Your task to perform on an android device: Toggle the flashlight Image 0: 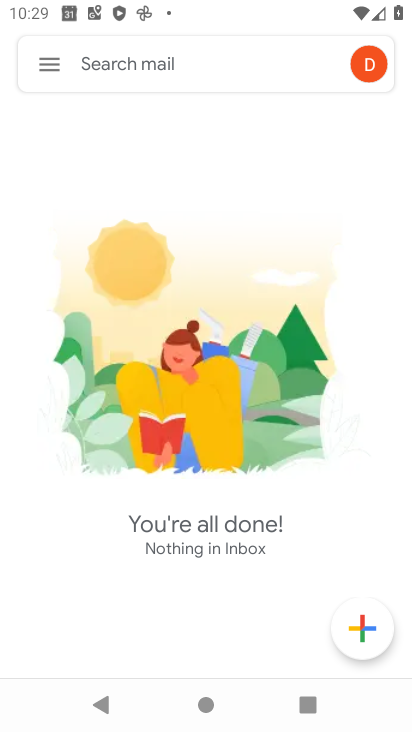
Step 0: drag from (247, 5) to (266, 613)
Your task to perform on an android device: Toggle the flashlight Image 1: 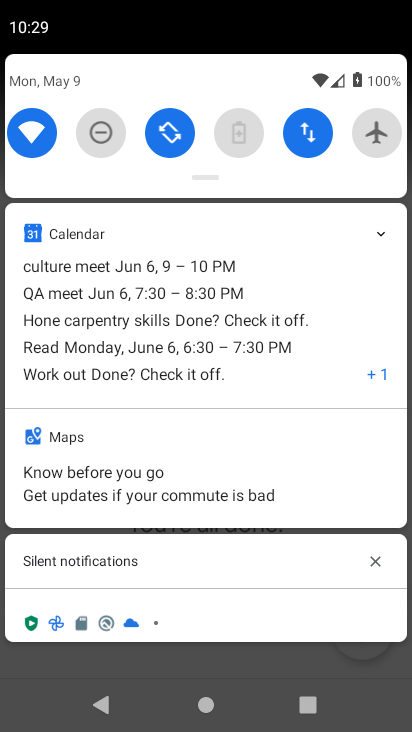
Step 1: task complete